Your task to perform on an android device: add a label to a message in the gmail app Image 0: 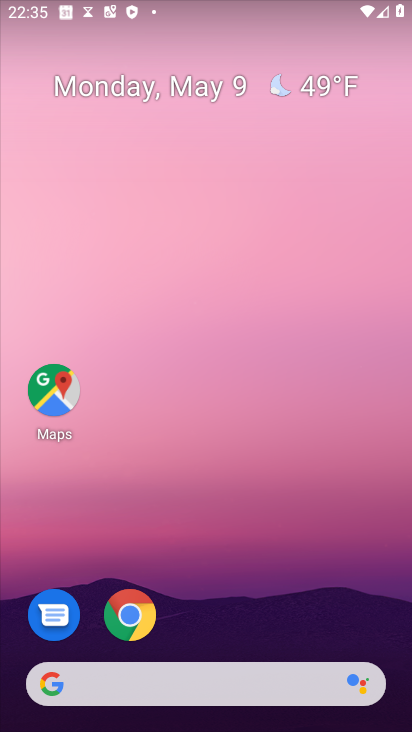
Step 0: drag from (229, 607) to (247, 103)
Your task to perform on an android device: add a label to a message in the gmail app Image 1: 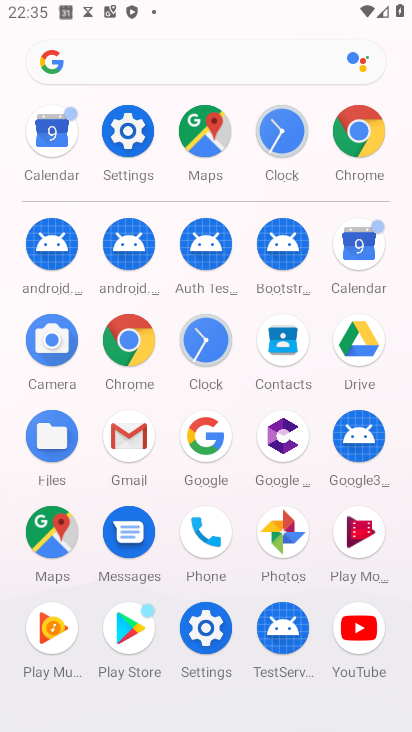
Step 1: click (117, 422)
Your task to perform on an android device: add a label to a message in the gmail app Image 2: 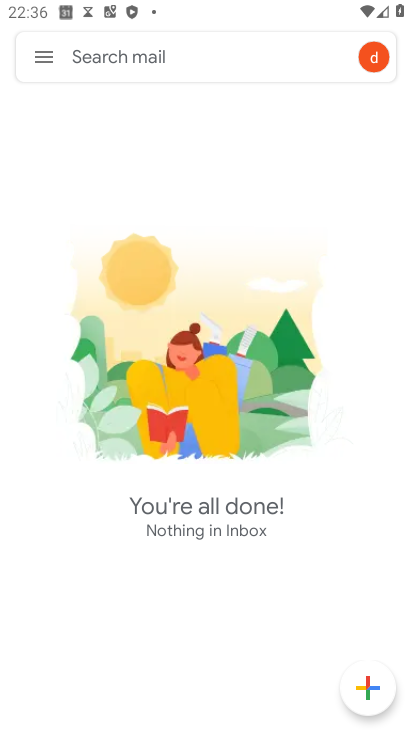
Step 2: click (46, 61)
Your task to perform on an android device: add a label to a message in the gmail app Image 3: 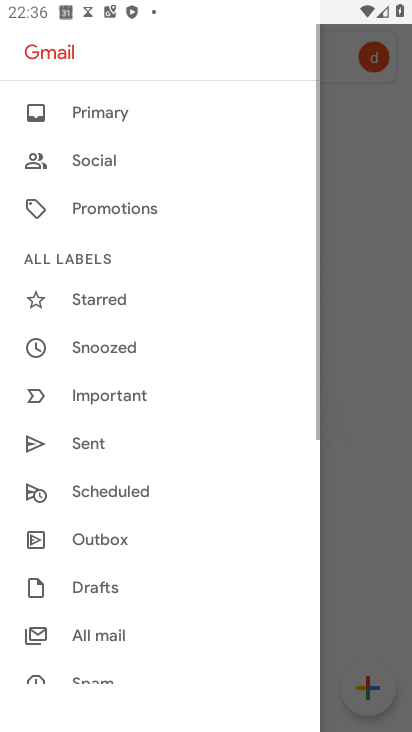
Step 3: click (109, 636)
Your task to perform on an android device: add a label to a message in the gmail app Image 4: 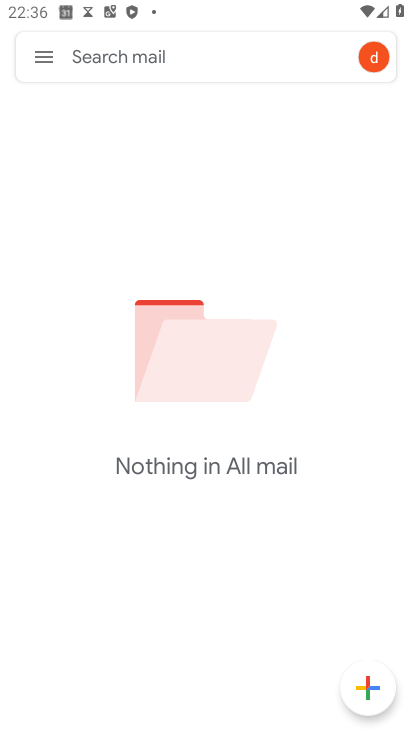
Step 4: task complete